Your task to perform on an android device: check the backup settings in the google photos Image 0: 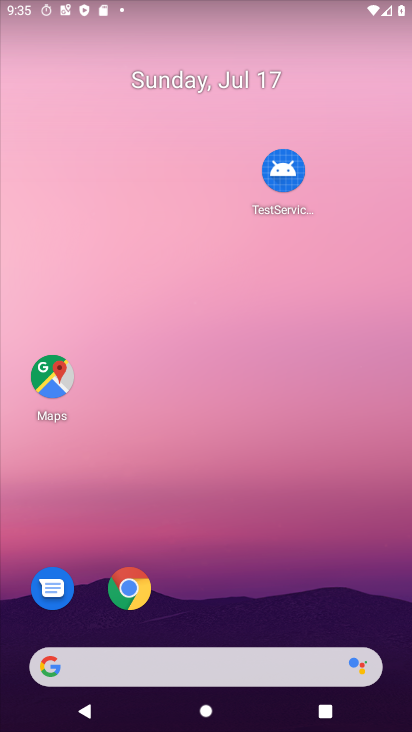
Step 0: drag from (249, 636) to (323, 165)
Your task to perform on an android device: check the backup settings in the google photos Image 1: 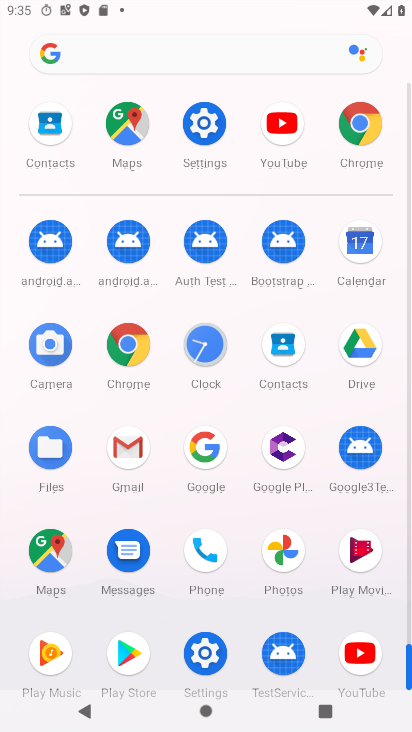
Step 1: click (294, 555)
Your task to perform on an android device: check the backup settings in the google photos Image 2: 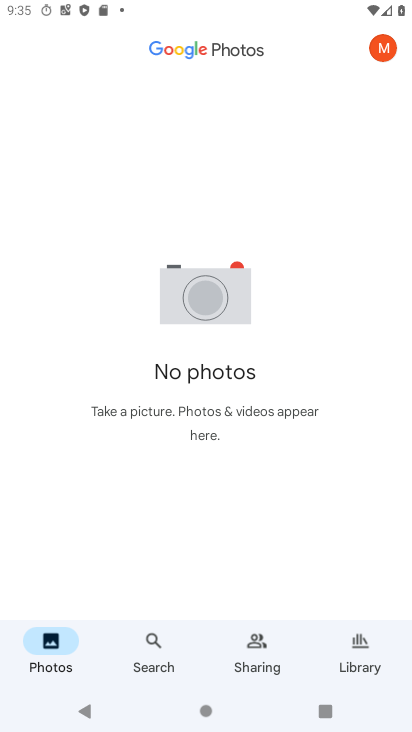
Step 2: click (377, 44)
Your task to perform on an android device: check the backup settings in the google photos Image 3: 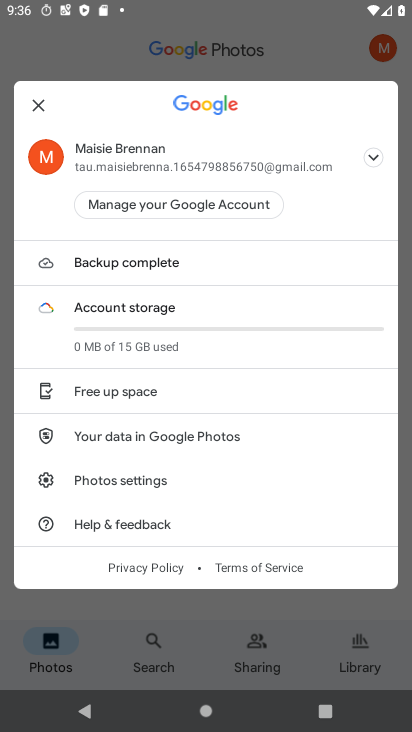
Step 3: click (92, 484)
Your task to perform on an android device: check the backup settings in the google photos Image 4: 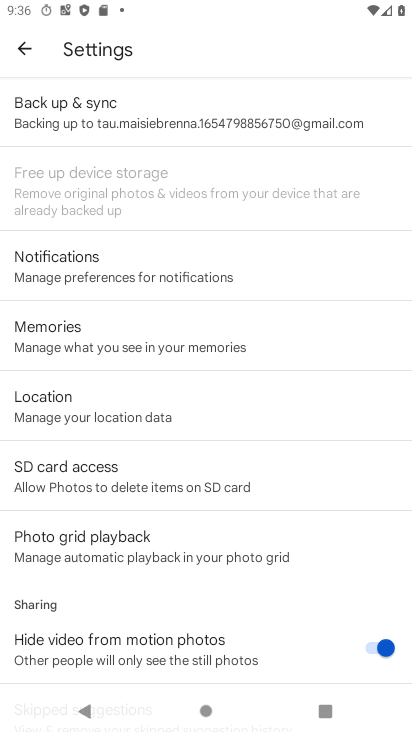
Step 4: drag from (191, 512) to (203, 446)
Your task to perform on an android device: check the backup settings in the google photos Image 5: 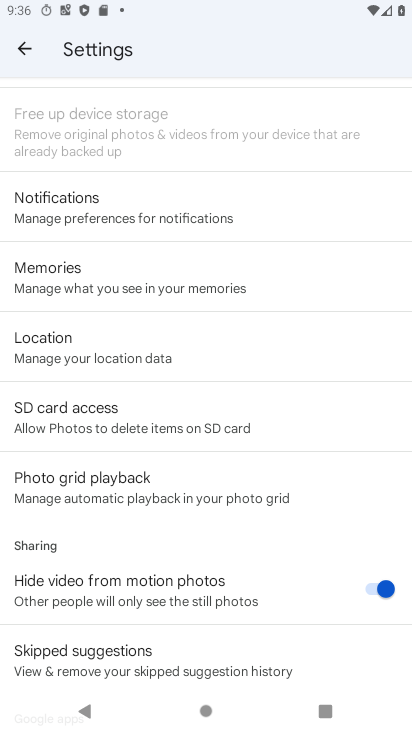
Step 5: drag from (253, 329) to (228, 596)
Your task to perform on an android device: check the backup settings in the google photos Image 6: 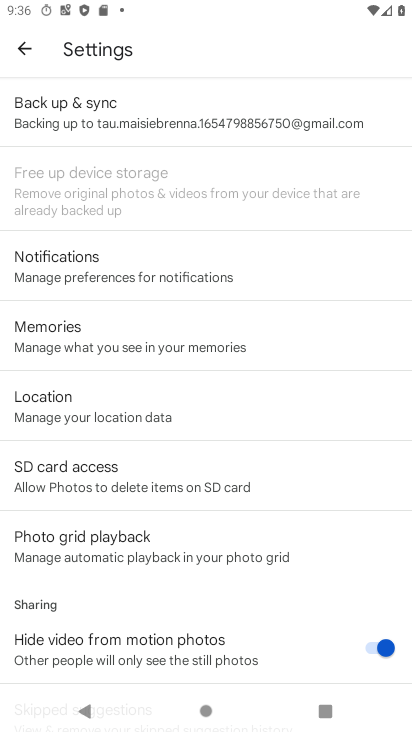
Step 6: click (272, 120)
Your task to perform on an android device: check the backup settings in the google photos Image 7: 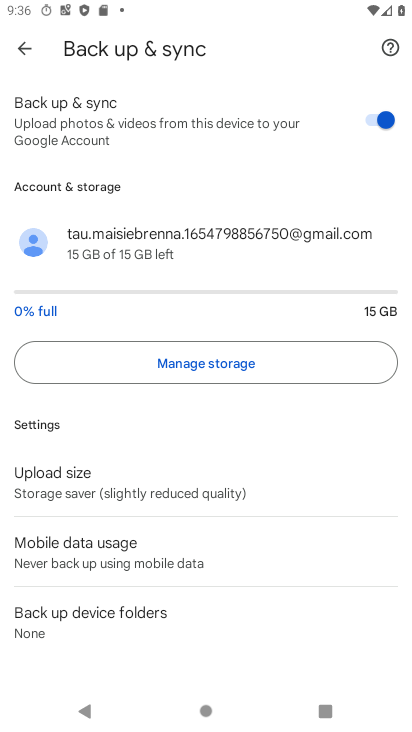
Step 7: task complete